Your task to perform on an android device: Open Google Chrome Image 0: 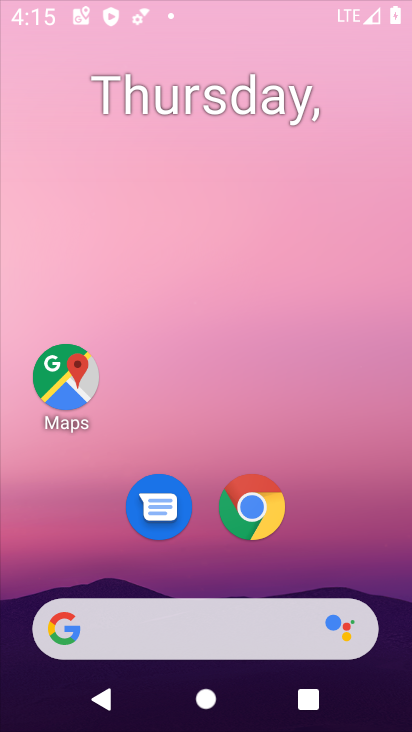
Step 0: press home button
Your task to perform on an android device: Open Google Chrome Image 1: 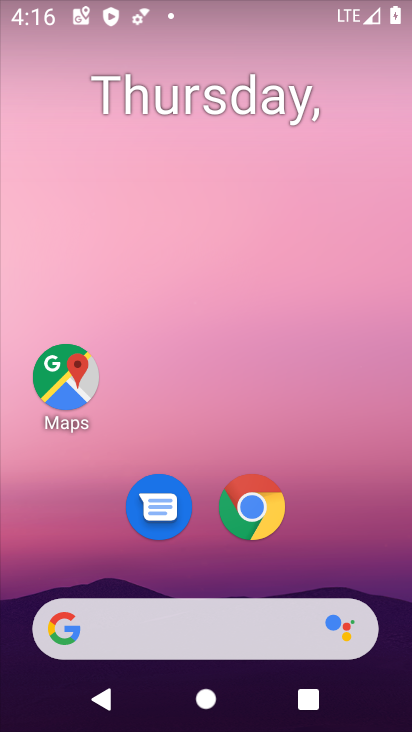
Step 1: click (236, 500)
Your task to perform on an android device: Open Google Chrome Image 2: 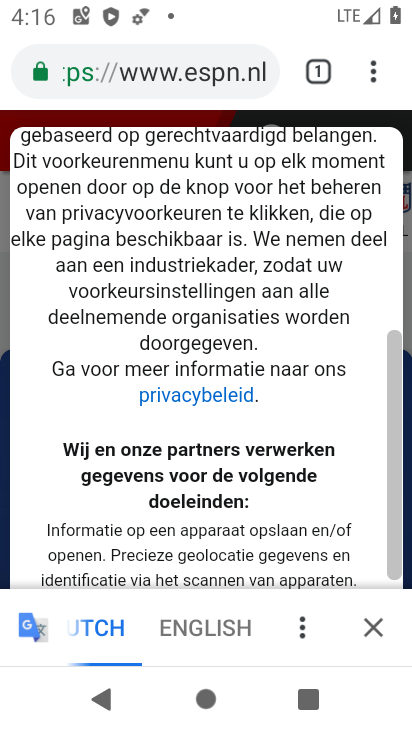
Step 2: task complete